Your task to perform on an android device: check android version Image 0: 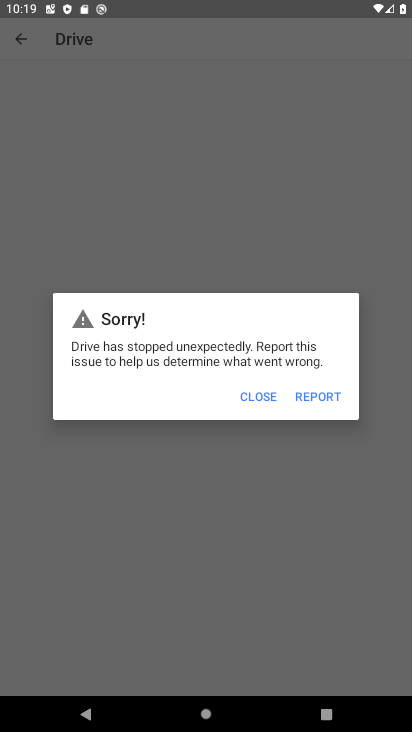
Step 0: press home button
Your task to perform on an android device: check android version Image 1: 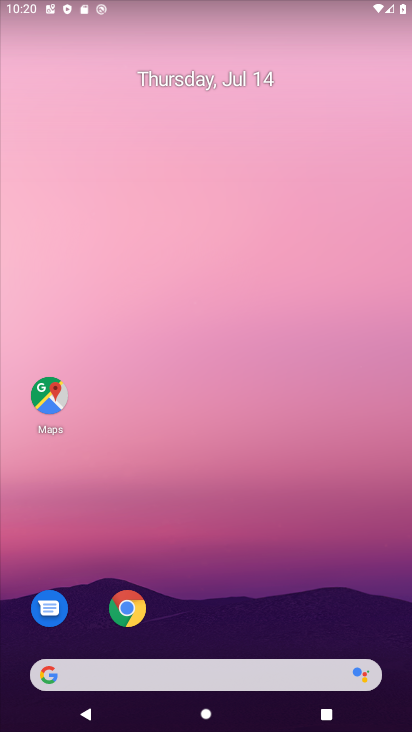
Step 1: drag from (245, 731) to (223, 263)
Your task to perform on an android device: check android version Image 2: 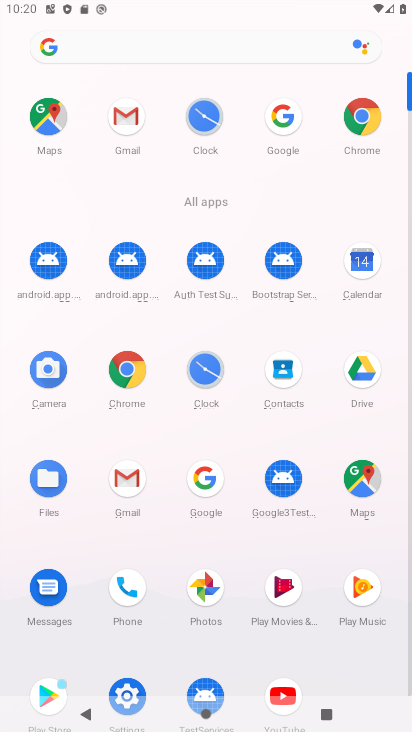
Step 2: click (120, 687)
Your task to perform on an android device: check android version Image 3: 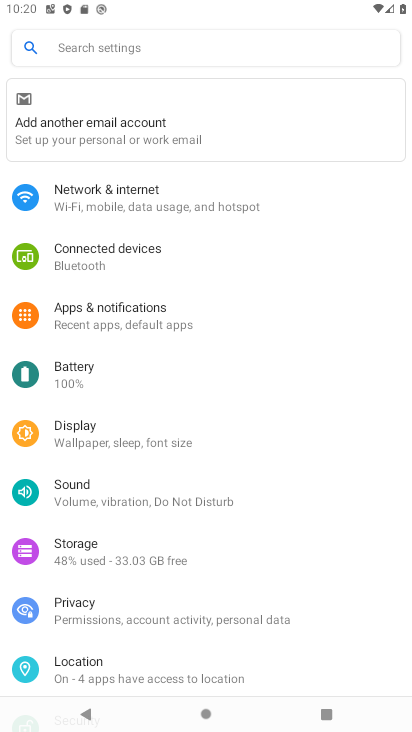
Step 3: drag from (171, 642) to (176, 314)
Your task to perform on an android device: check android version Image 4: 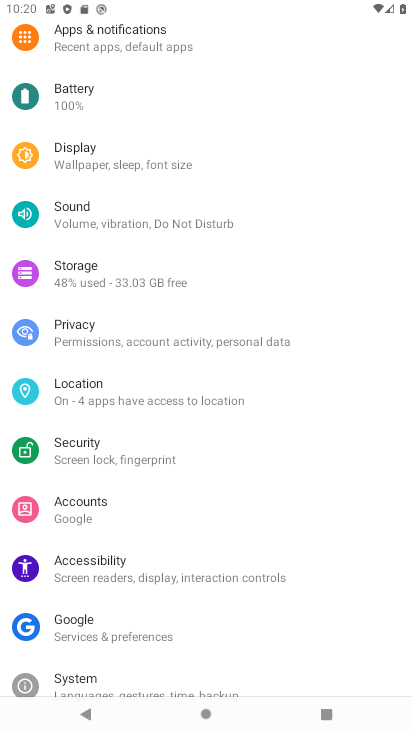
Step 4: drag from (137, 669) to (142, 237)
Your task to perform on an android device: check android version Image 5: 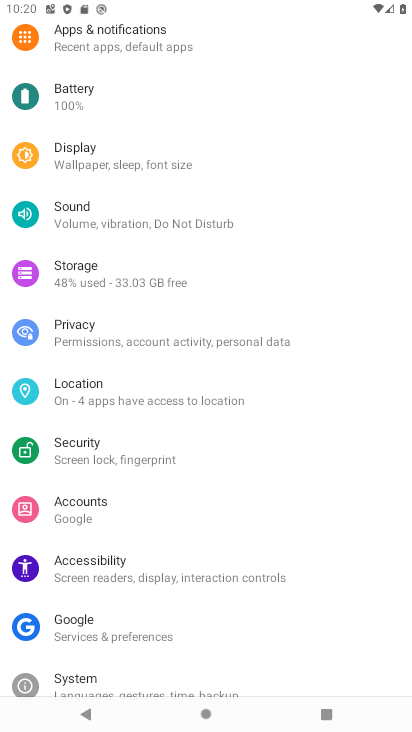
Step 5: drag from (134, 659) to (137, 386)
Your task to perform on an android device: check android version Image 6: 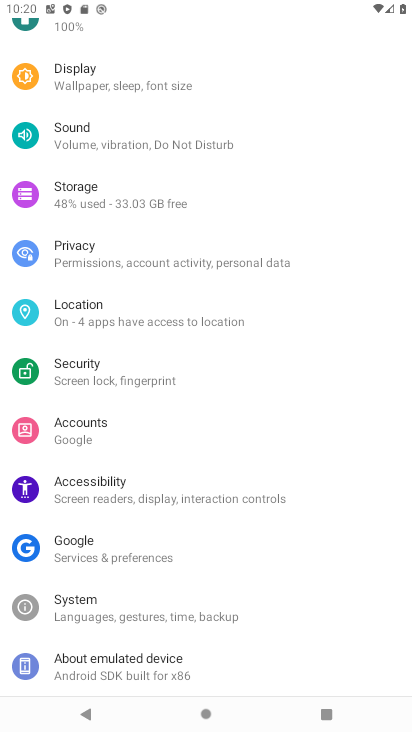
Step 6: click (103, 661)
Your task to perform on an android device: check android version Image 7: 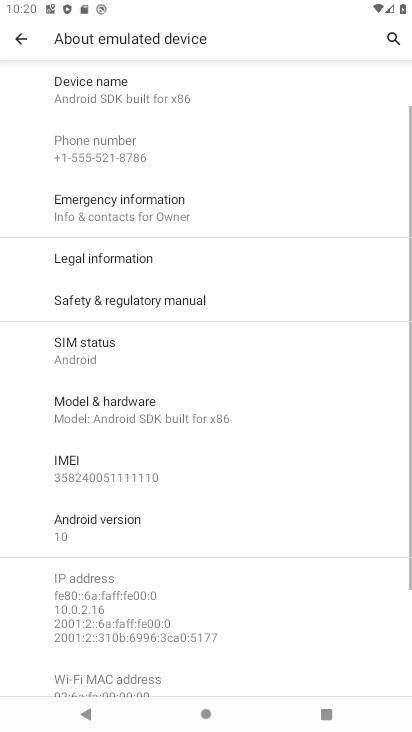
Step 7: click (76, 526)
Your task to perform on an android device: check android version Image 8: 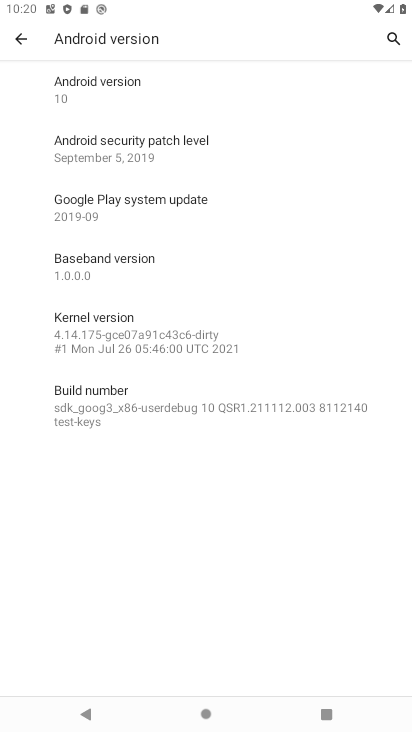
Step 8: task complete